Your task to perform on an android device: Turn off the flashlight Image 0: 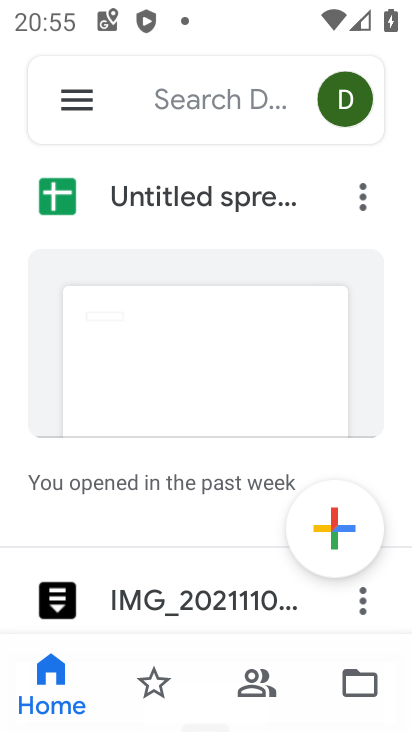
Step 0: press home button
Your task to perform on an android device: Turn off the flashlight Image 1: 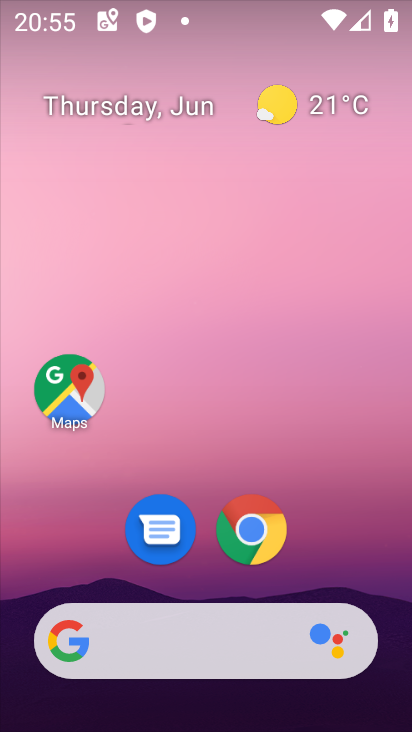
Step 1: drag from (341, 538) to (192, 127)
Your task to perform on an android device: Turn off the flashlight Image 2: 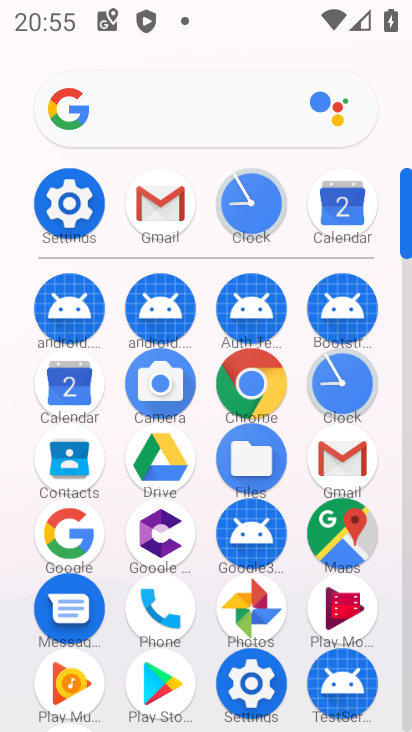
Step 2: click (67, 206)
Your task to perform on an android device: Turn off the flashlight Image 3: 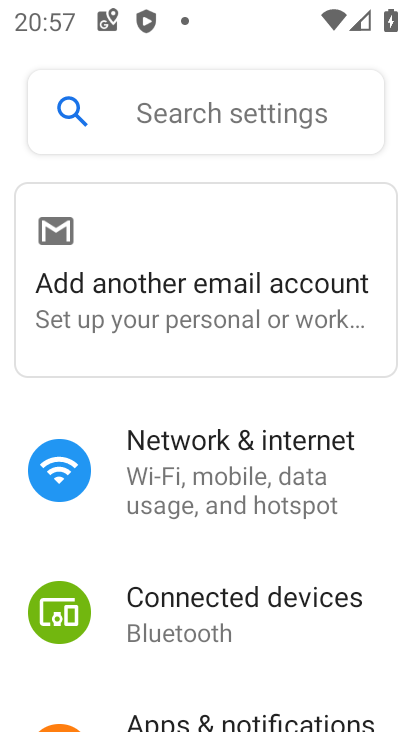
Step 3: drag from (209, 536) to (151, 145)
Your task to perform on an android device: Turn off the flashlight Image 4: 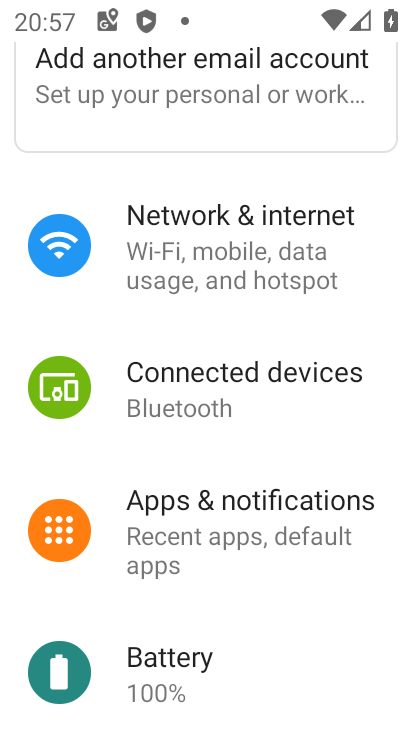
Step 4: drag from (241, 582) to (140, 243)
Your task to perform on an android device: Turn off the flashlight Image 5: 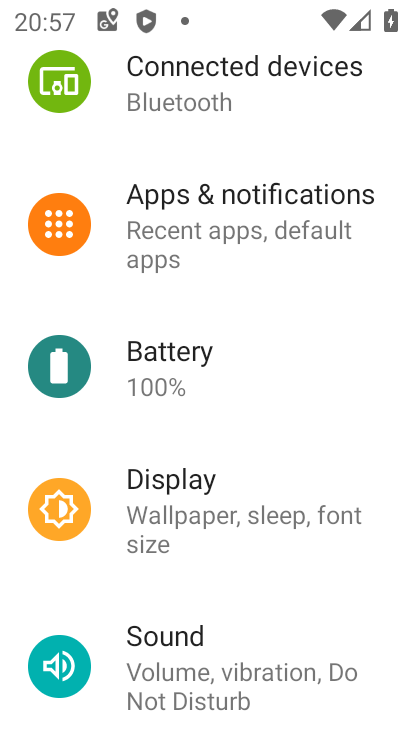
Step 5: click (177, 644)
Your task to perform on an android device: Turn off the flashlight Image 6: 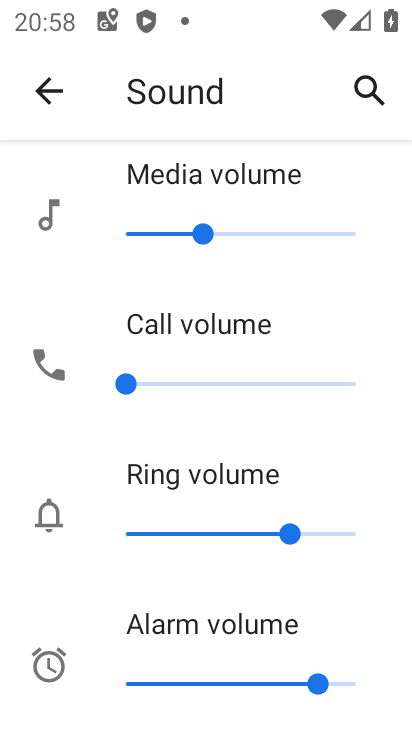
Step 6: task complete